Your task to perform on an android device: snooze an email in the gmail app Image 0: 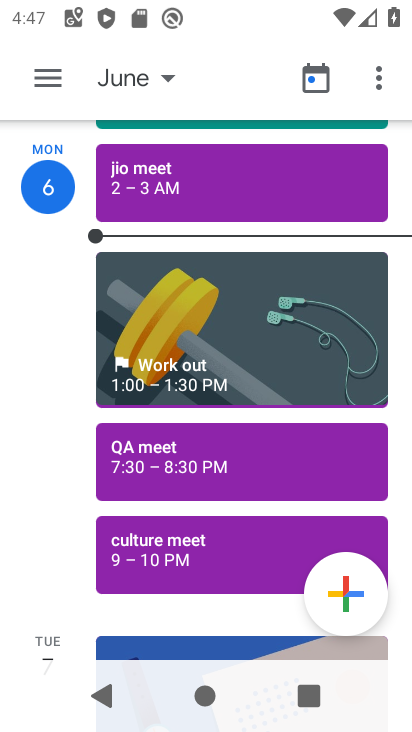
Step 0: press home button
Your task to perform on an android device: snooze an email in the gmail app Image 1: 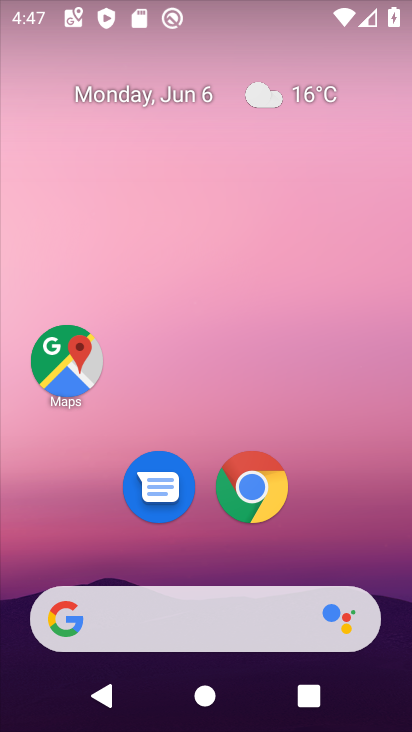
Step 1: drag from (323, 527) to (380, 34)
Your task to perform on an android device: snooze an email in the gmail app Image 2: 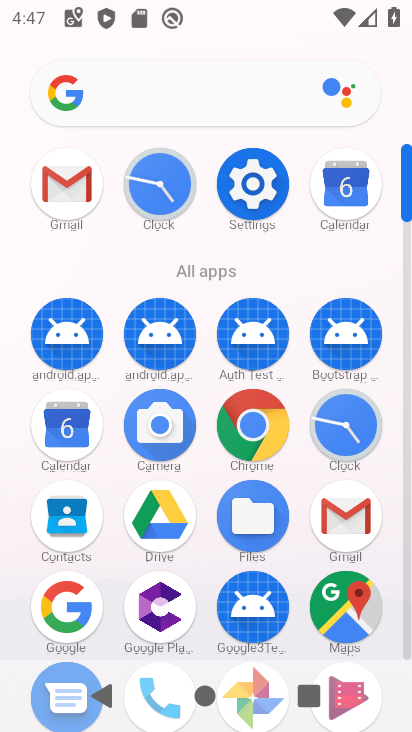
Step 2: click (76, 197)
Your task to perform on an android device: snooze an email in the gmail app Image 3: 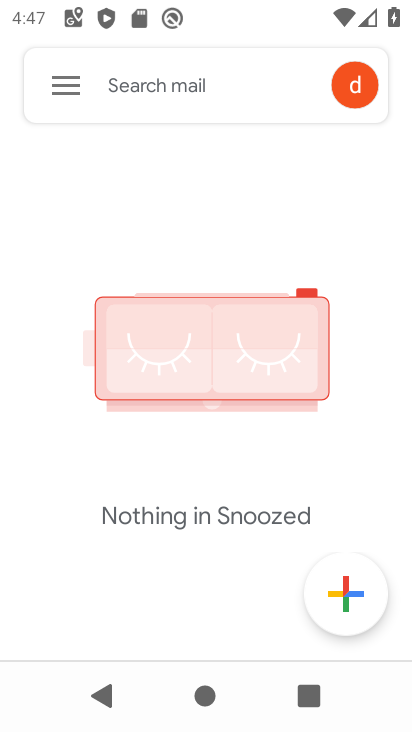
Step 3: click (62, 86)
Your task to perform on an android device: snooze an email in the gmail app Image 4: 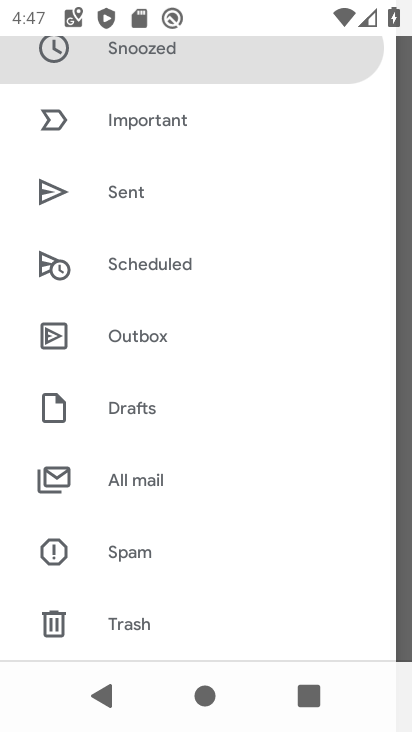
Step 4: click (140, 471)
Your task to perform on an android device: snooze an email in the gmail app Image 5: 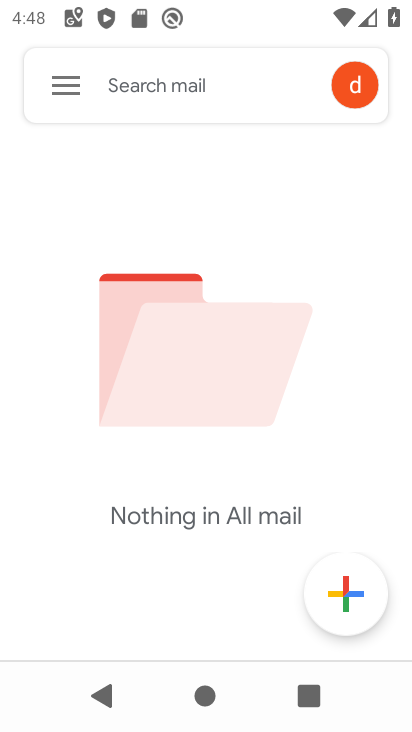
Step 5: task complete